Your task to perform on an android device: turn off location history Image 0: 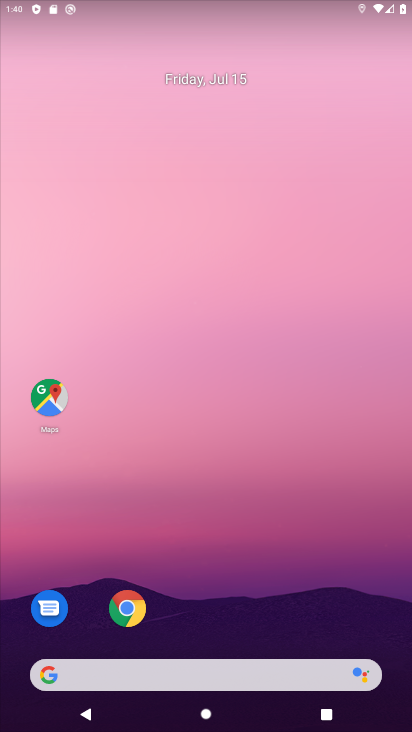
Step 0: click (31, 410)
Your task to perform on an android device: turn off location history Image 1: 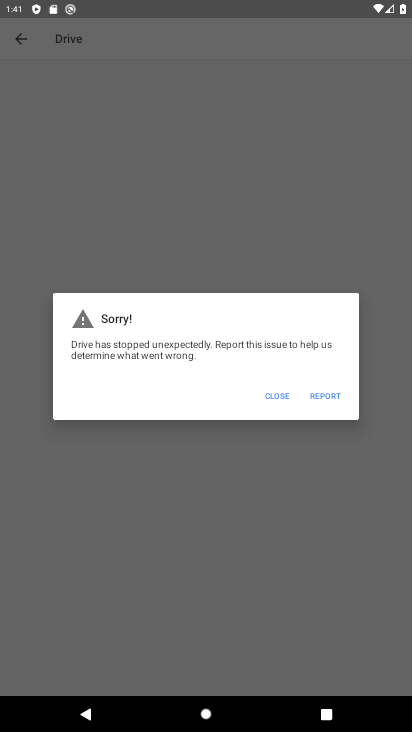
Step 1: press home button
Your task to perform on an android device: turn off location history Image 2: 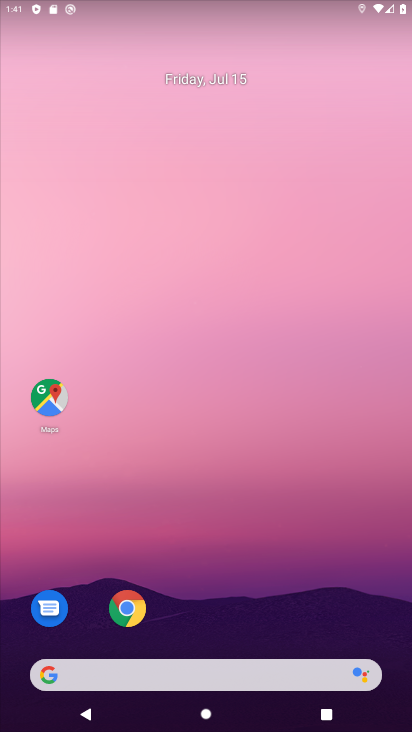
Step 2: drag from (188, 665) to (192, 176)
Your task to perform on an android device: turn off location history Image 3: 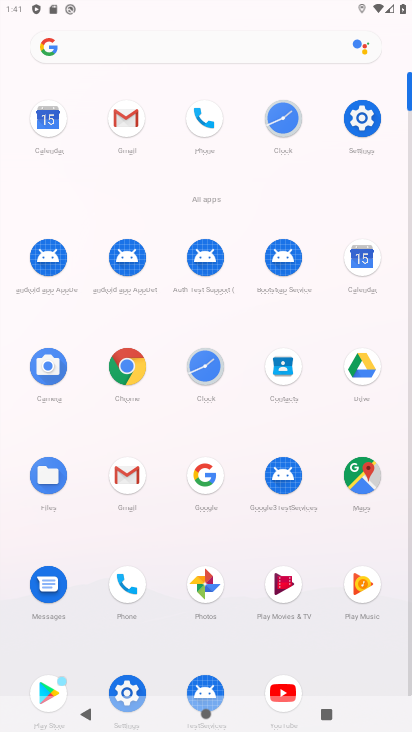
Step 3: click (372, 123)
Your task to perform on an android device: turn off location history Image 4: 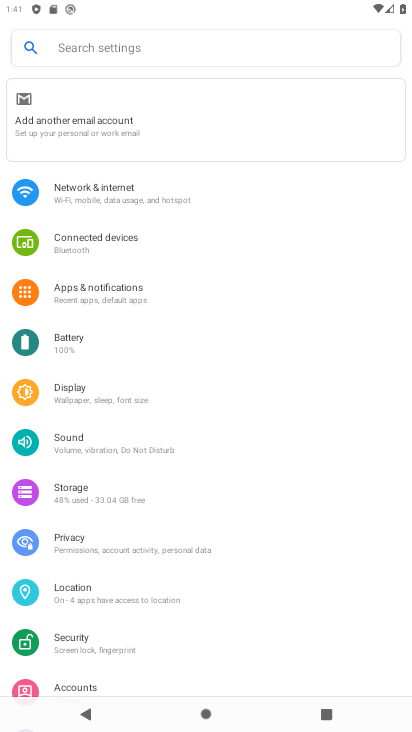
Step 4: click (90, 586)
Your task to perform on an android device: turn off location history Image 5: 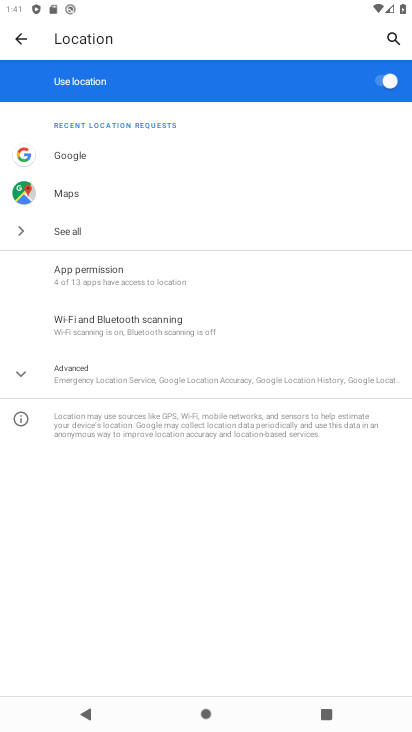
Step 5: click (114, 365)
Your task to perform on an android device: turn off location history Image 6: 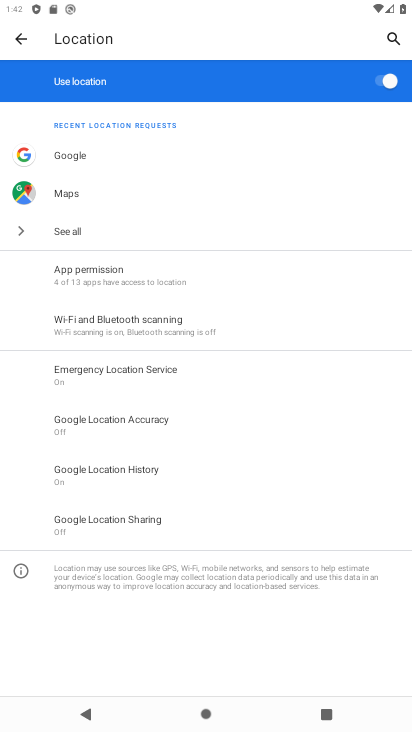
Step 6: click (148, 480)
Your task to perform on an android device: turn off location history Image 7: 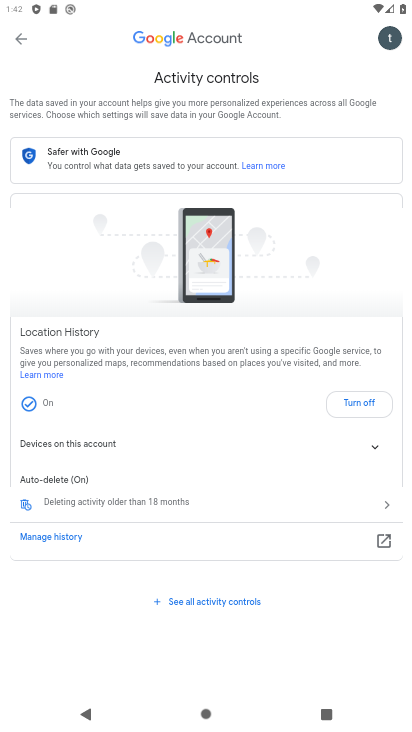
Step 7: click (369, 416)
Your task to perform on an android device: turn off location history Image 8: 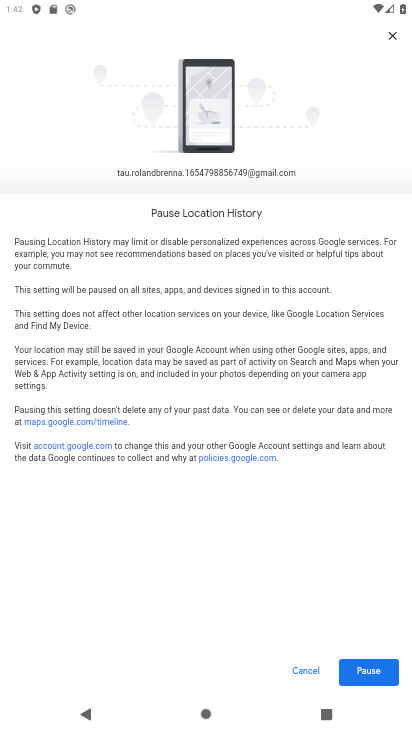
Step 8: click (377, 677)
Your task to perform on an android device: turn off location history Image 9: 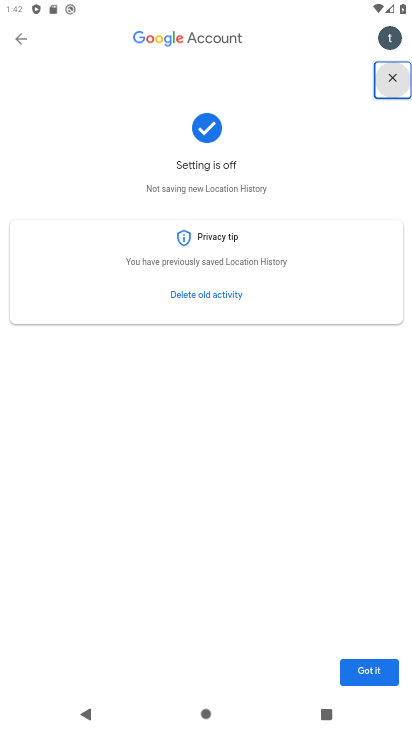
Step 9: click (377, 677)
Your task to perform on an android device: turn off location history Image 10: 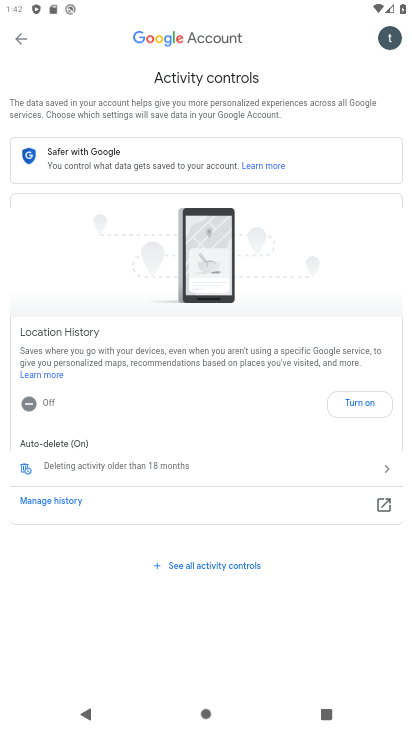
Step 10: task complete